Your task to perform on an android device: View the shopping cart on amazon. Add "panasonic triple a" to the cart on amazon, then select checkout. Image 0: 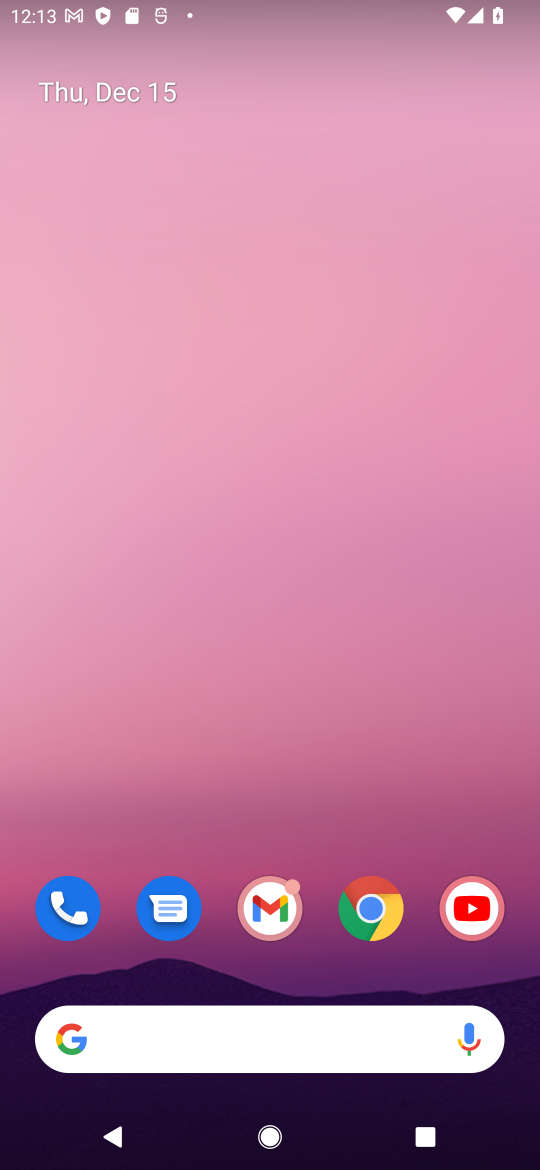
Step 0: click (378, 919)
Your task to perform on an android device: View the shopping cart on amazon. Add "panasonic triple a" to the cart on amazon, then select checkout. Image 1: 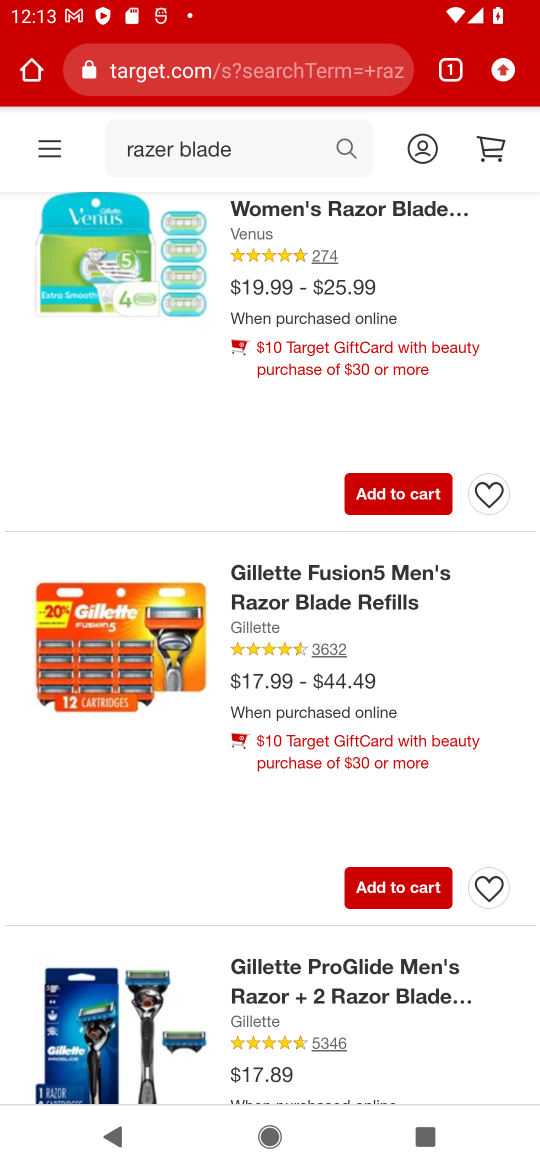
Step 1: click (178, 80)
Your task to perform on an android device: View the shopping cart on amazon. Add "panasonic triple a" to the cart on amazon, then select checkout. Image 2: 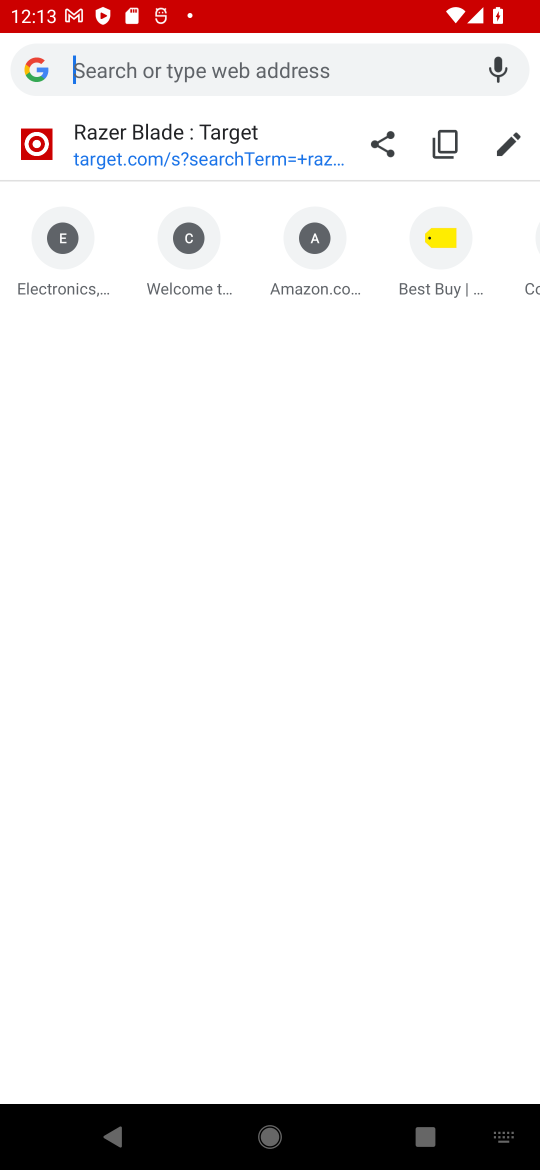
Step 2: click (286, 290)
Your task to perform on an android device: View the shopping cart on amazon. Add "panasonic triple a" to the cart on amazon, then select checkout. Image 3: 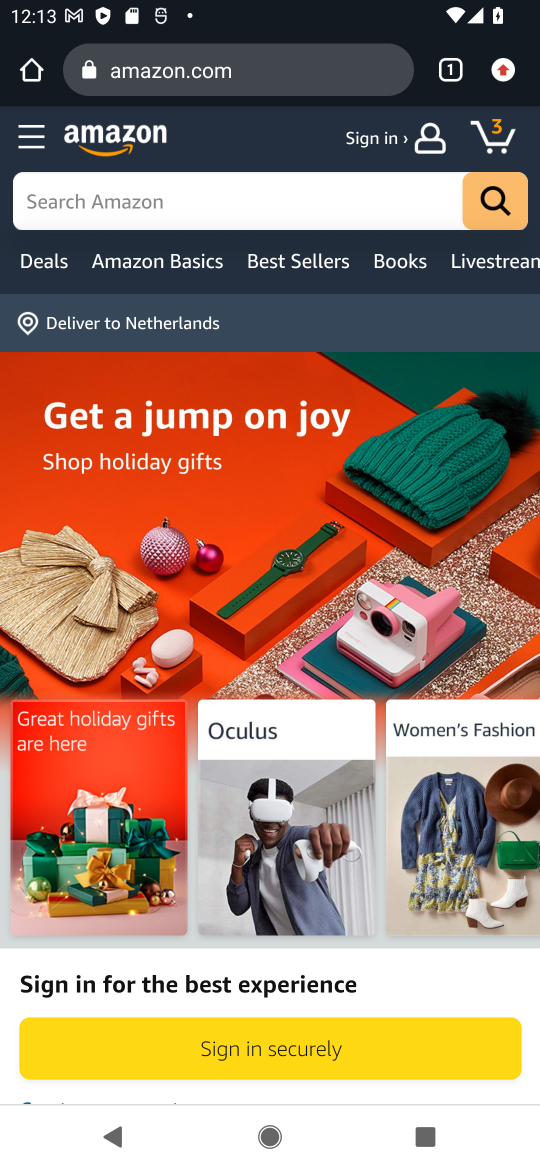
Step 3: click (492, 133)
Your task to perform on an android device: View the shopping cart on amazon. Add "panasonic triple a" to the cart on amazon, then select checkout. Image 4: 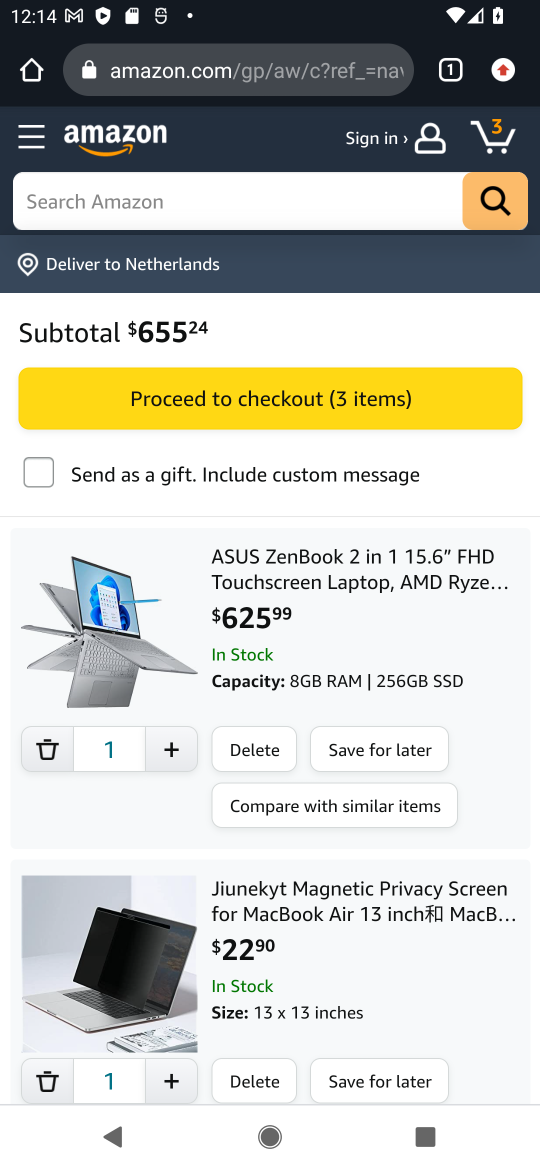
Step 4: click (132, 212)
Your task to perform on an android device: View the shopping cart on amazon. Add "panasonic triple a" to the cart on amazon, then select checkout. Image 5: 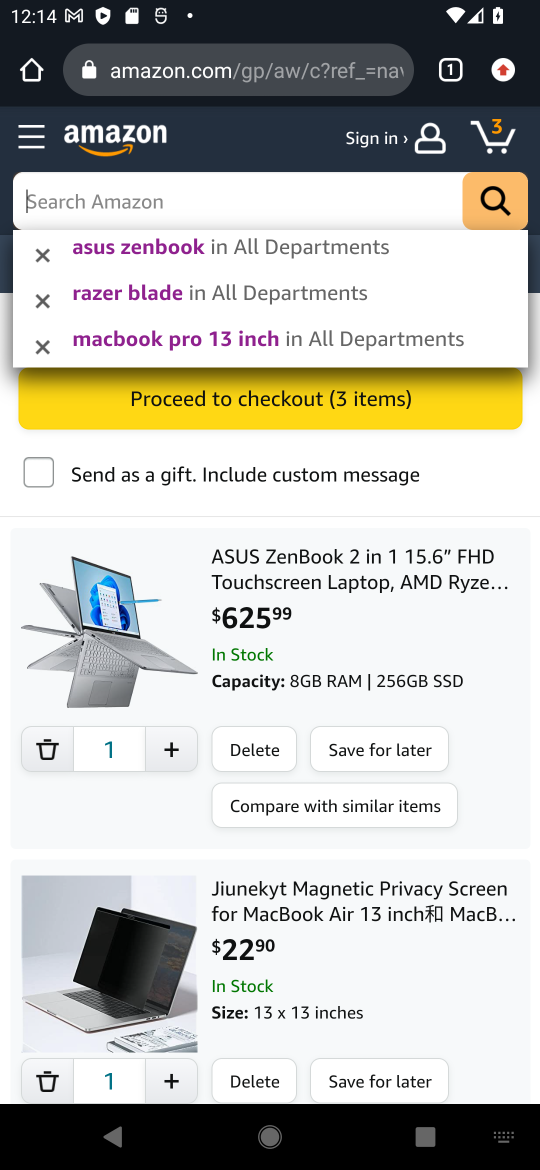
Step 5: type "panasonic triple a"
Your task to perform on an android device: View the shopping cart on amazon. Add "panasonic triple a" to the cart on amazon, then select checkout. Image 6: 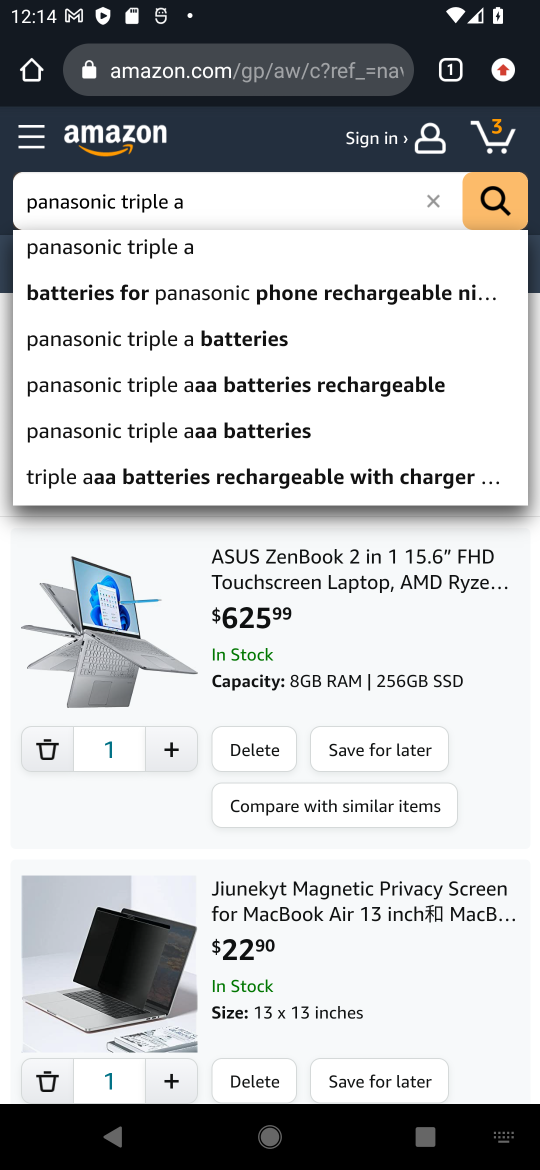
Step 6: click (150, 252)
Your task to perform on an android device: View the shopping cart on amazon. Add "panasonic triple a" to the cart on amazon, then select checkout. Image 7: 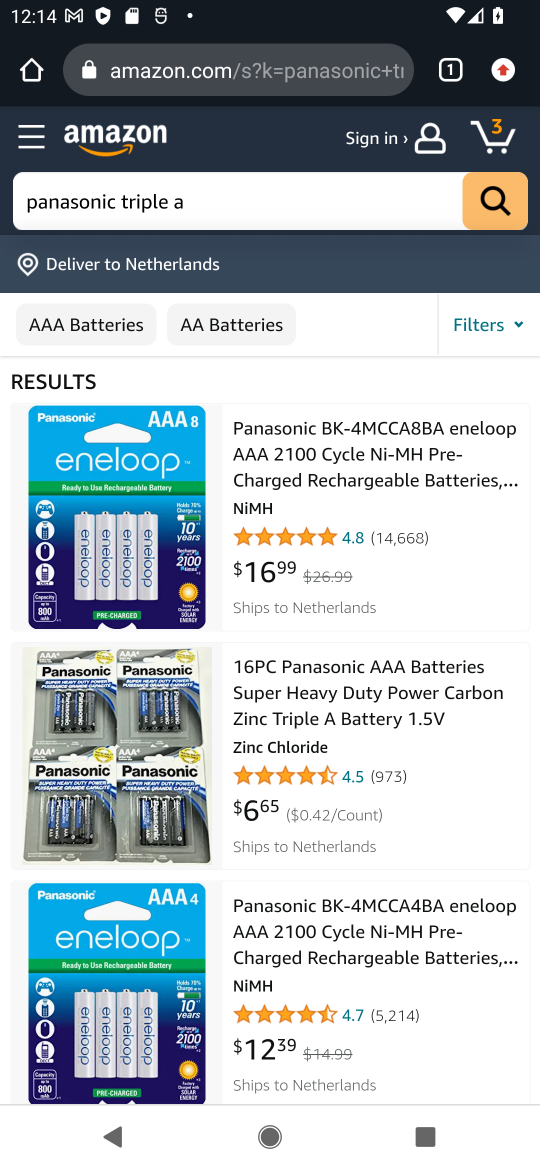
Step 7: click (280, 484)
Your task to perform on an android device: View the shopping cart on amazon. Add "panasonic triple a" to the cart on amazon, then select checkout. Image 8: 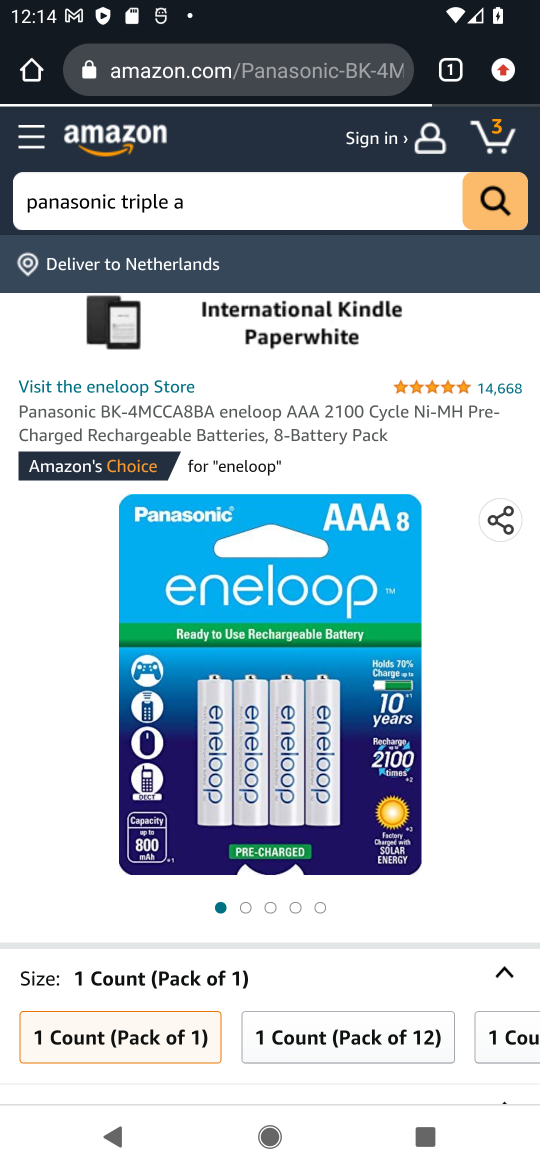
Step 8: drag from (256, 720) to (262, 397)
Your task to perform on an android device: View the shopping cart on amazon. Add "panasonic triple a" to the cart on amazon, then select checkout. Image 9: 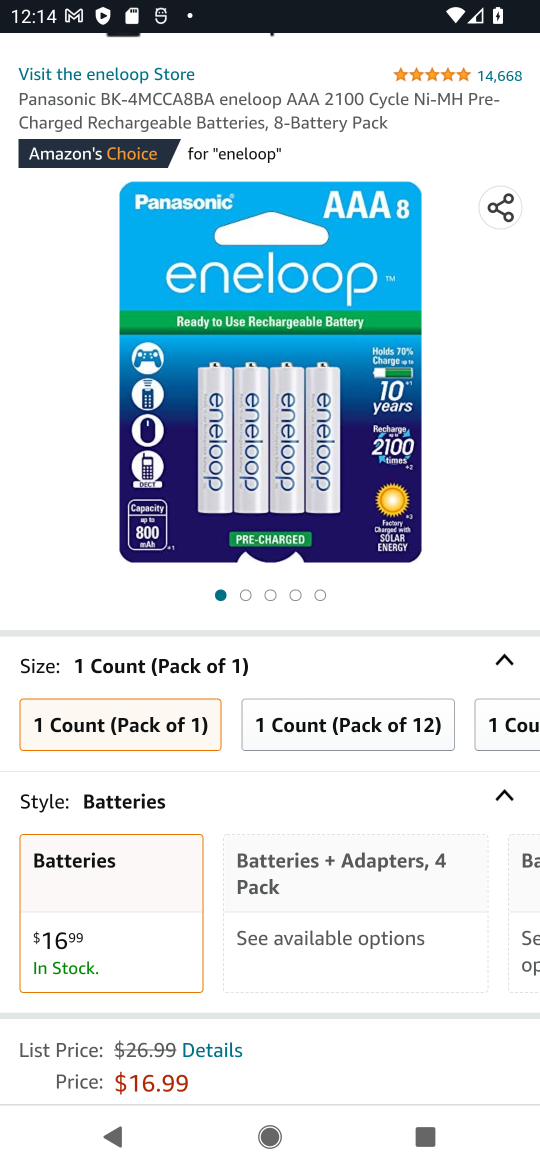
Step 9: drag from (256, 764) to (272, 436)
Your task to perform on an android device: View the shopping cart on amazon. Add "panasonic triple a" to the cart on amazon, then select checkout. Image 10: 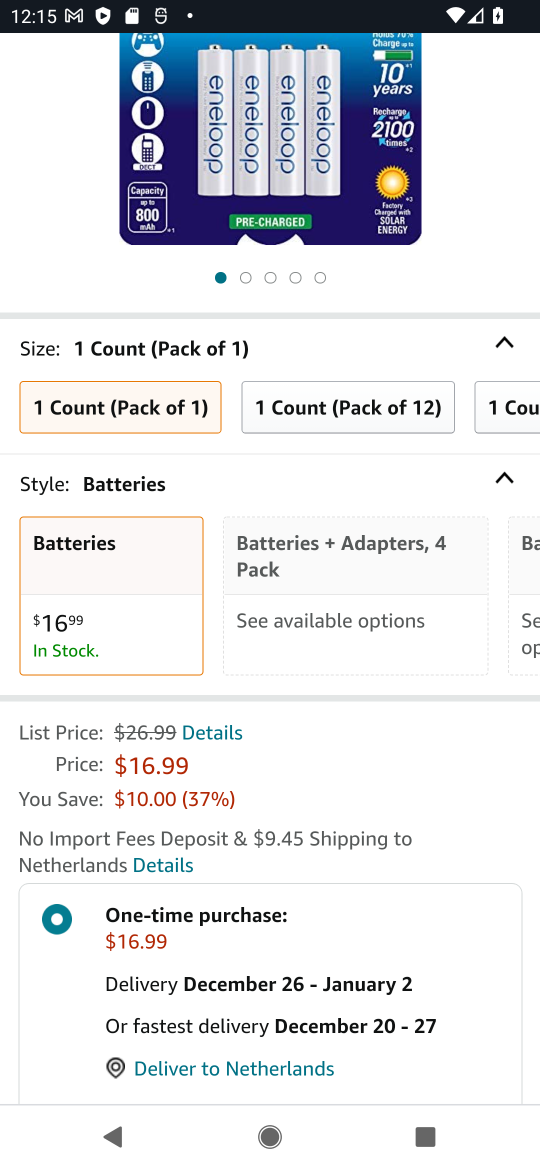
Step 10: drag from (279, 764) to (314, 392)
Your task to perform on an android device: View the shopping cart on amazon. Add "panasonic triple a" to the cart on amazon, then select checkout. Image 11: 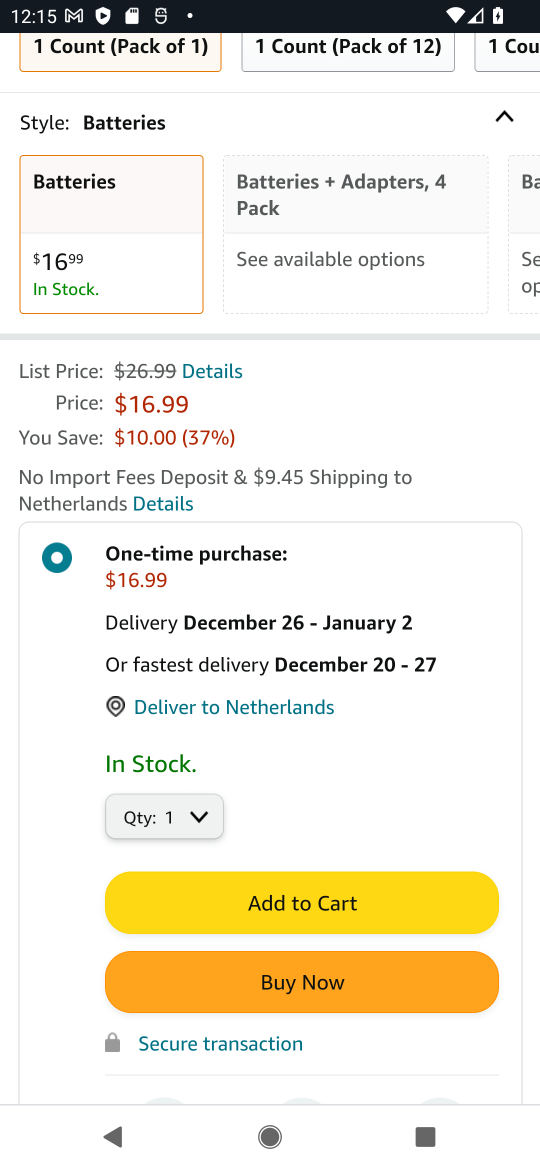
Step 11: click (264, 906)
Your task to perform on an android device: View the shopping cart on amazon. Add "panasonic triple a" to the cart on amazon, then select checkout. Image 12: 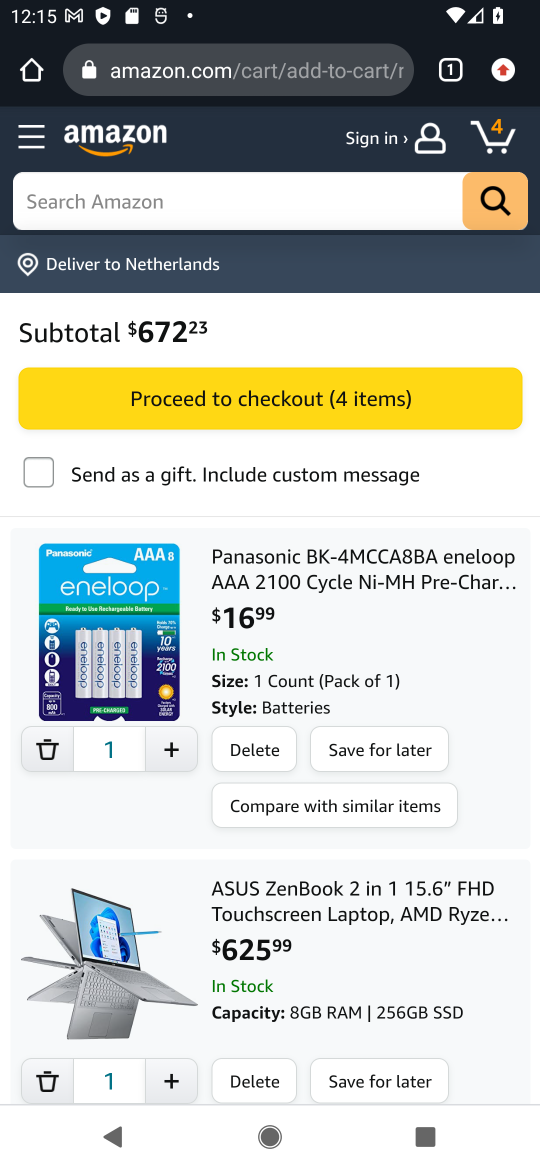
Step 12: click (292, 405)
Your task to perform on an android device: View the shopping cart on amazon. Add "panasonic triple a" to the cart on amazon, then select checkout. Image 13: 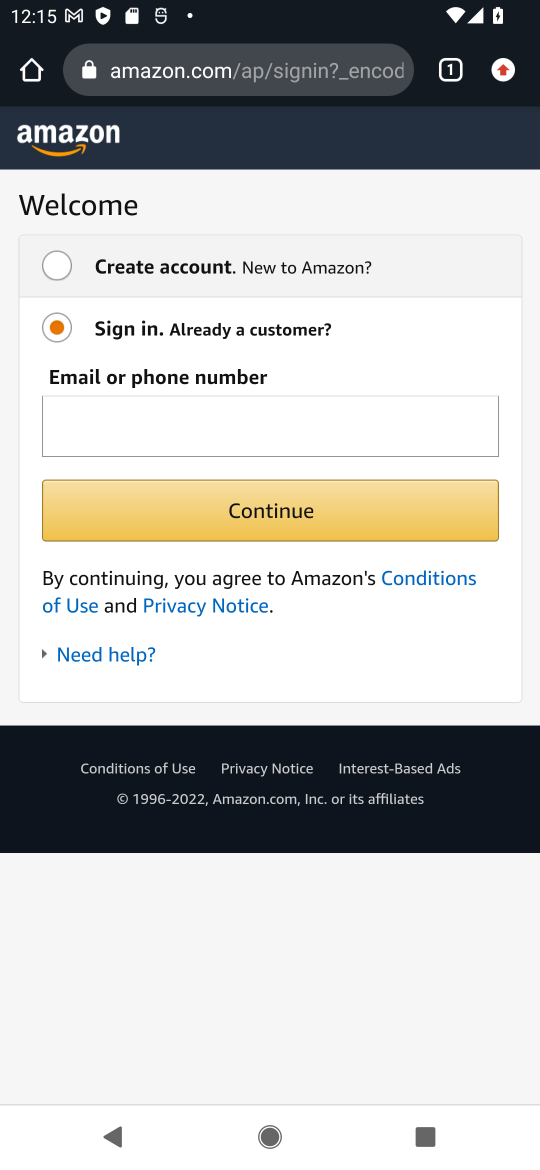
Step 13: task complete